Your task to perform on an android device: turn on showing notifications on the lock screen Image 0: 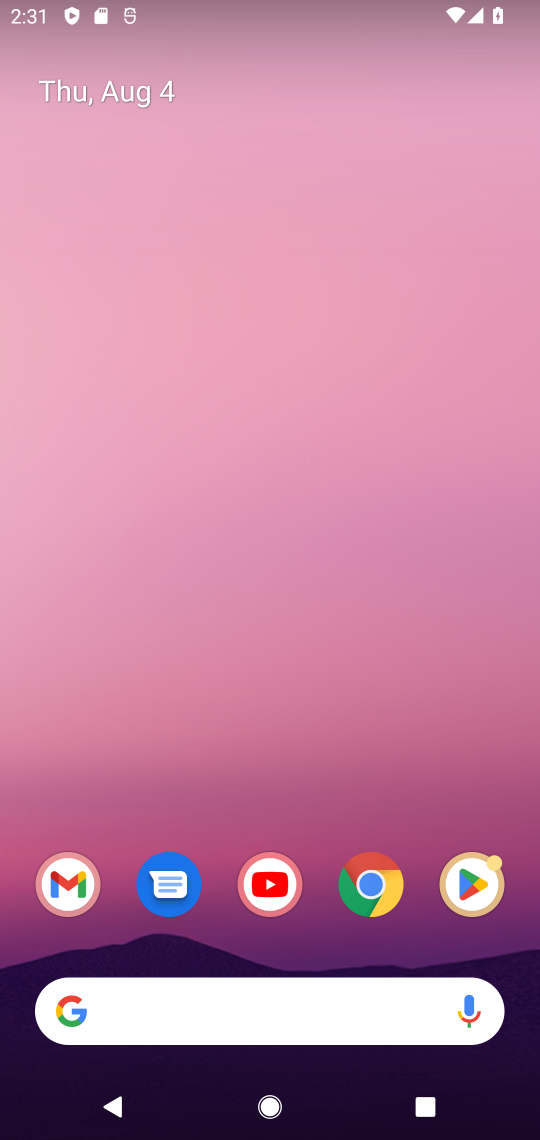
Step 0: drag from (272, 879) to (327, 508)
Your task to perform on an android device: turn on showing notifications on the lock screen Image 1: 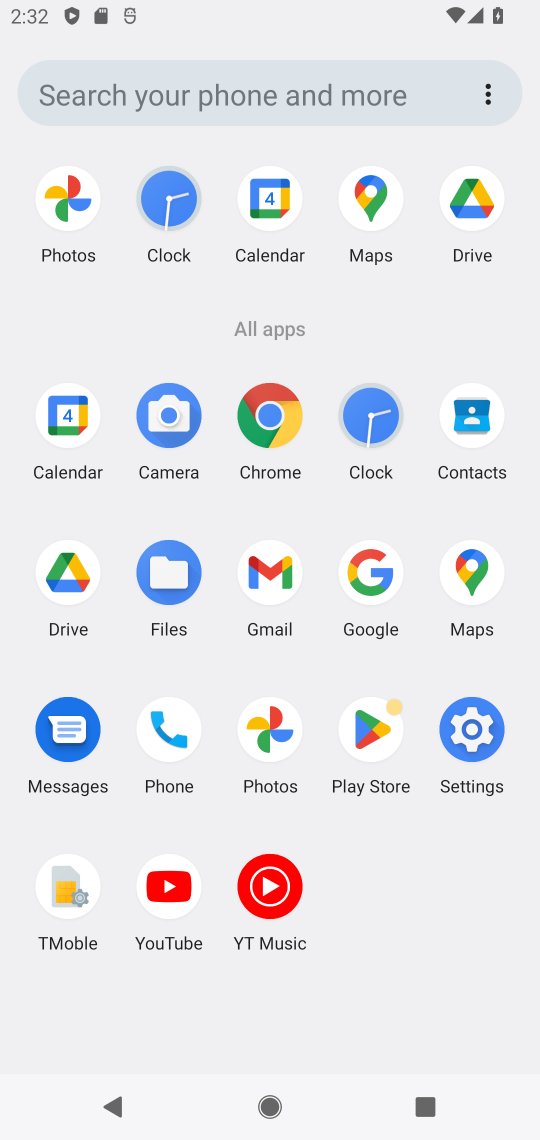
Step 1: click (451, 724)
Your task to perform on an android device: turn on showing notifications on the lock screen Image 2: 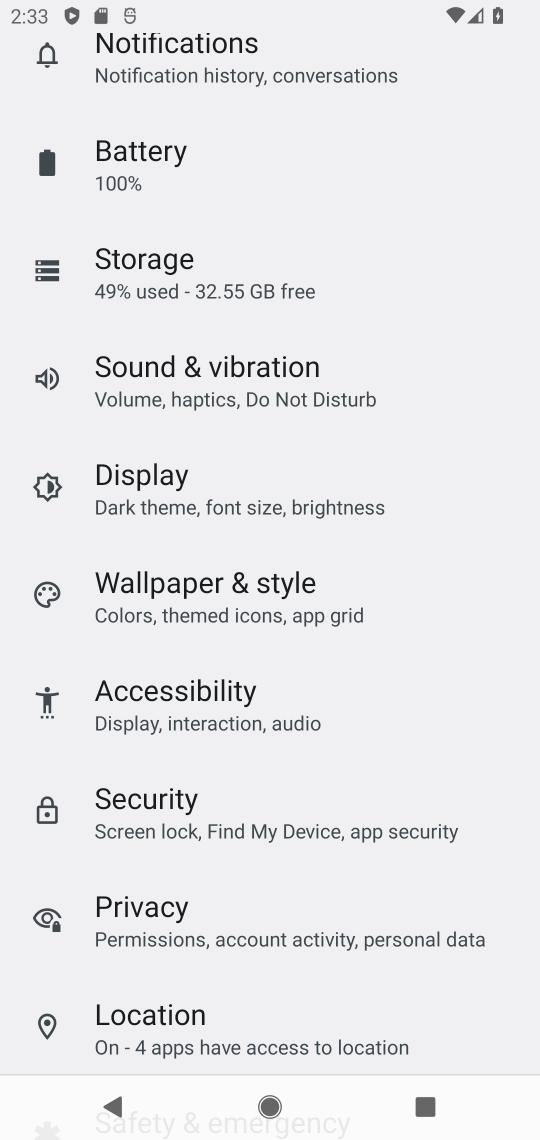
Step 2: drag from (272, 115) to (308, 734)
Your task to perform on an android device: turn on showing notifications on the lock screen Image 3: 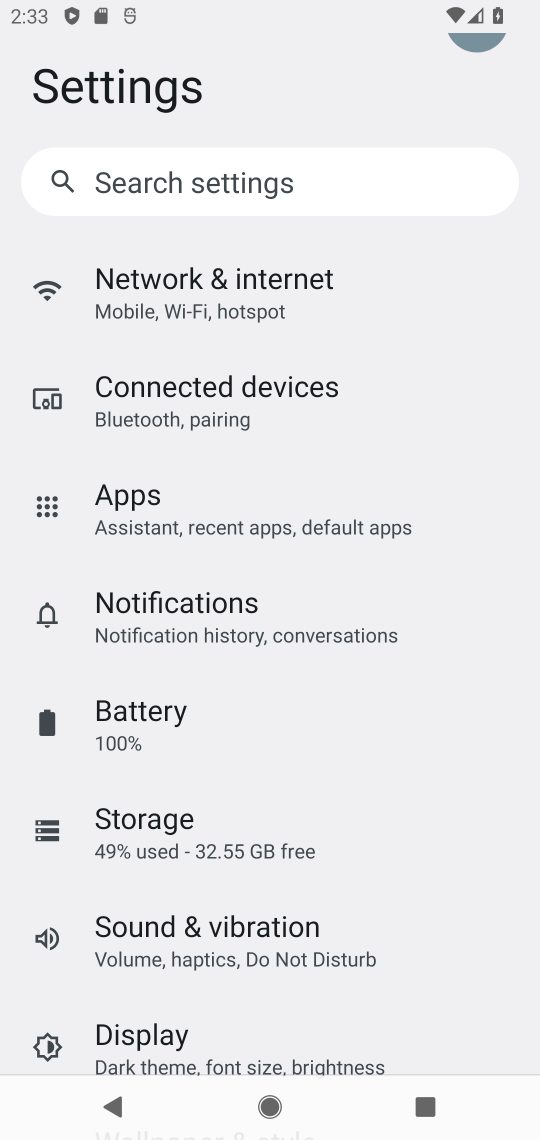
Step 3: click (246, 593)
Your task to perform on an android device: turn on showing notifications on the lock screen Image 4: 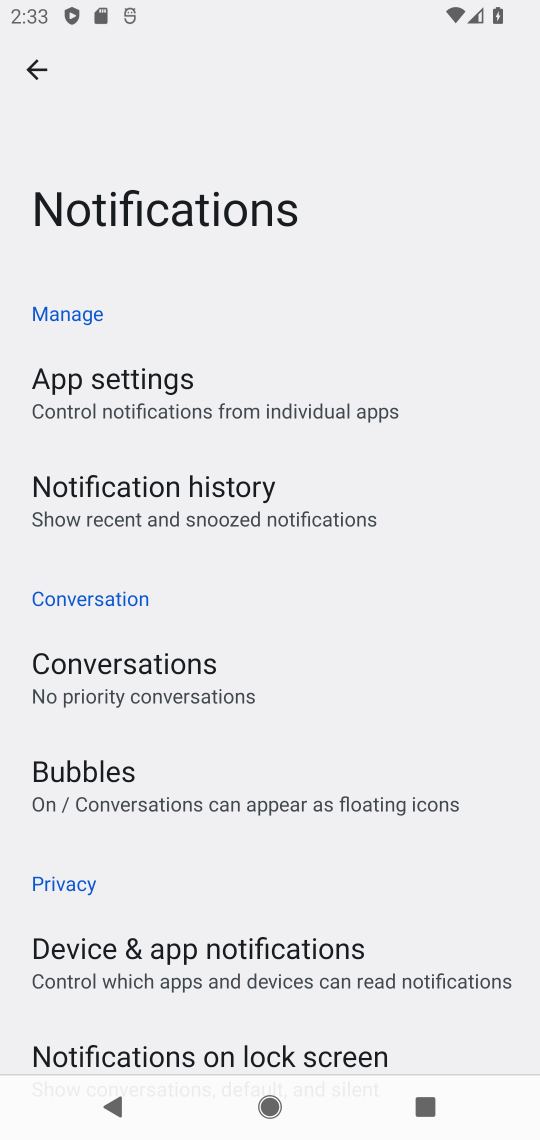
Step 4: click (33, 52)
Your task to perform on an android device: turn on showing notifications on the lock screen Image 5: 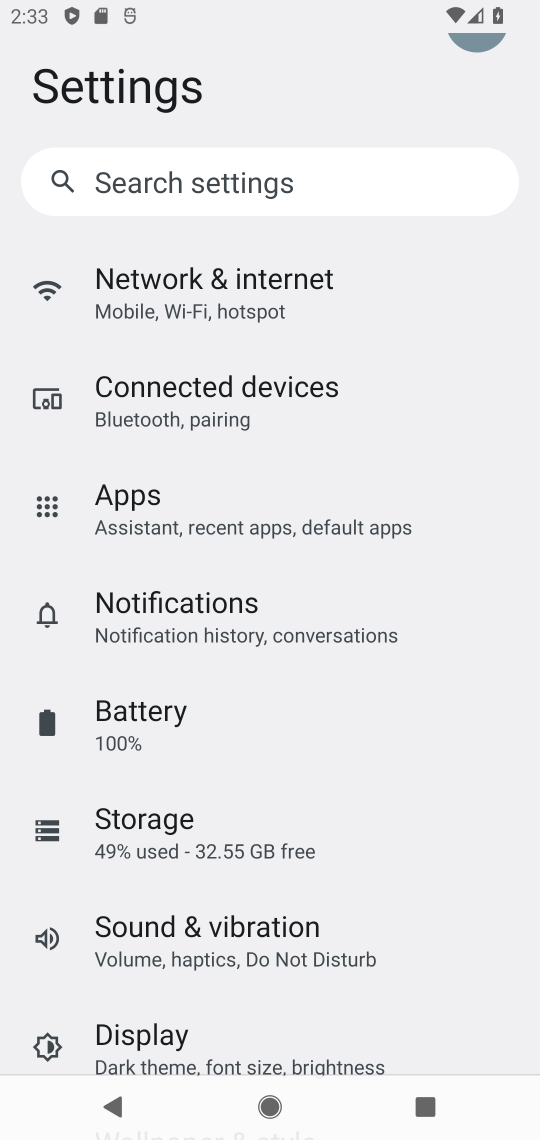
Step 5: click (215, 611)
Your task to perform on an android device: turn on showing notifications on the lock screen Image 6: 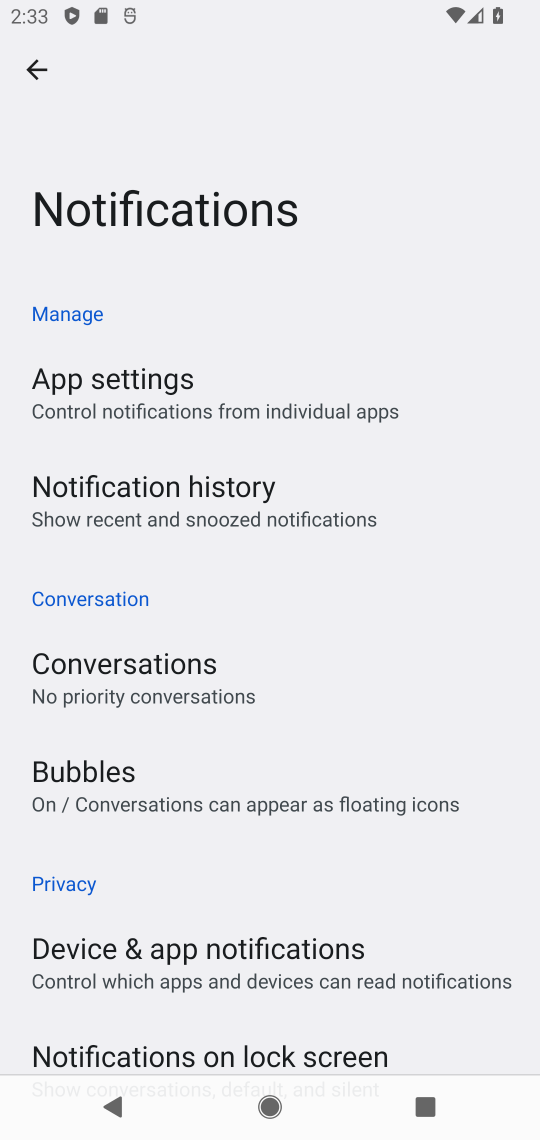
Step 6: drag from (253, 1033) to (315, 505)
Your task to perform on an android device: turn on showing notifications on the lock screen Image 7: 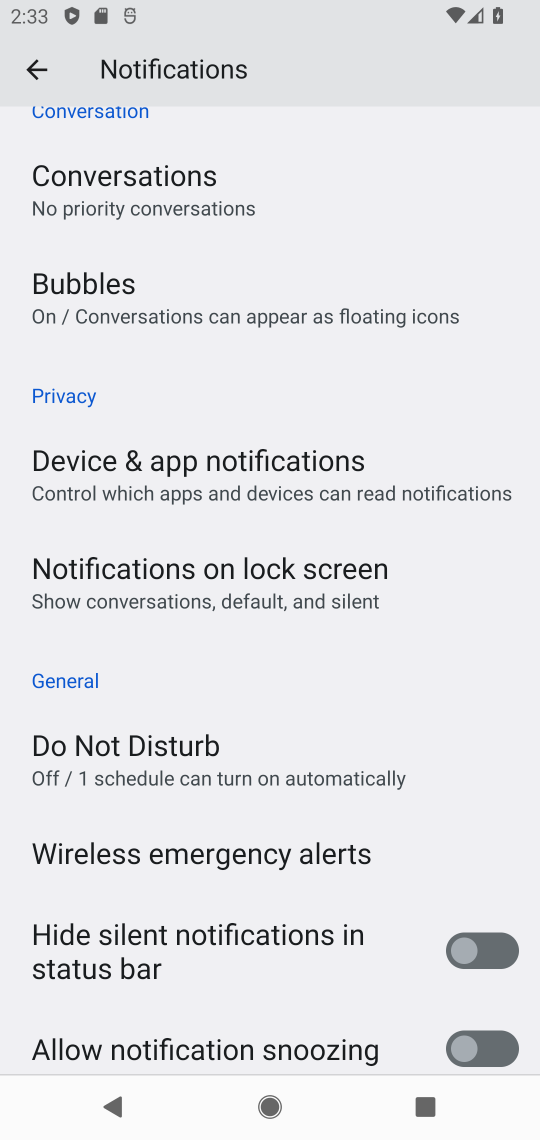
Step 7: click (277, 556)
Your task to perform on an android device: turn on showing notifications on the lock screen Image 8: 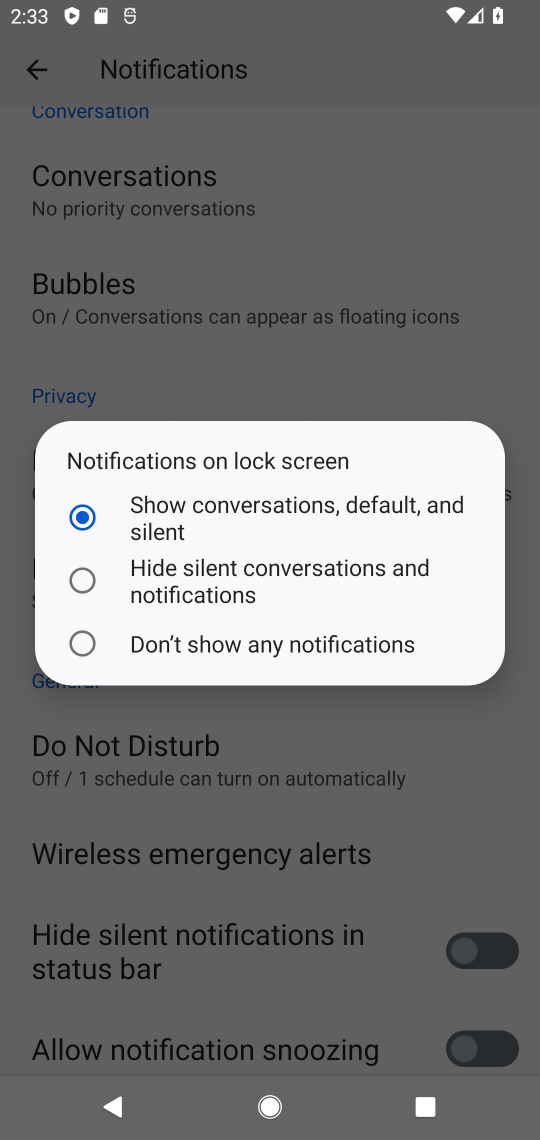
Step 8: task complete